Your task to perform on an android device: Open battery settings Image 0: 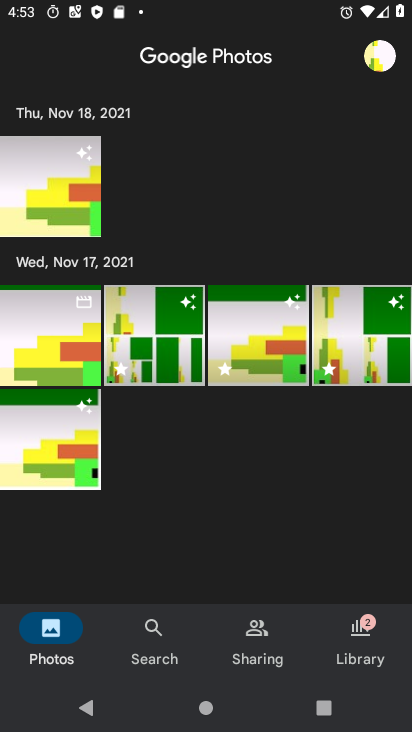
Step 0: press home button
Your task to perform on an android device: Open battery settings Image 1: 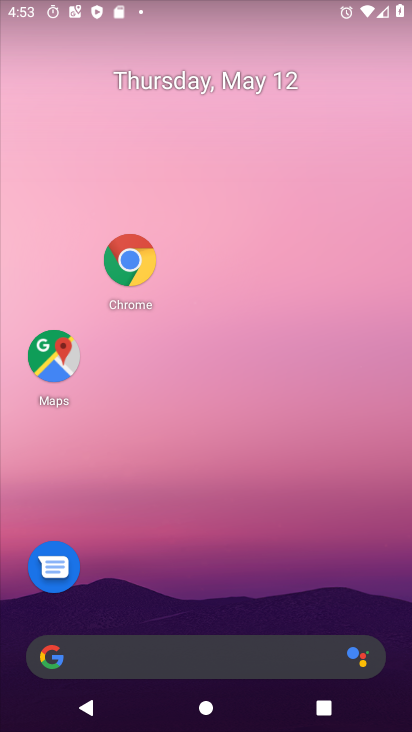
Step 1: click (220, 250)
Your task to perform on an android device: Open battery settings Image 2: 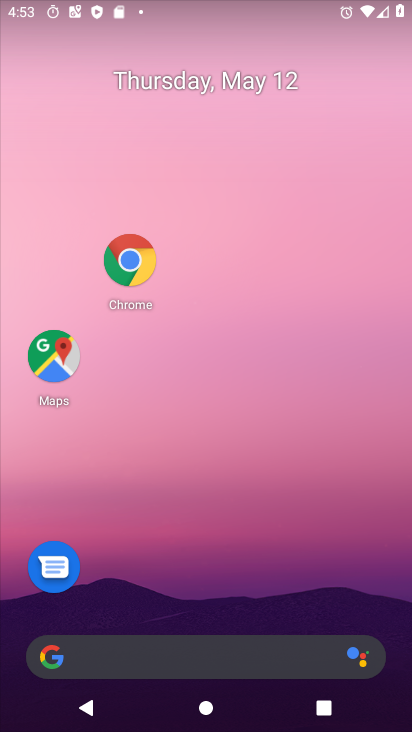
Step 2: drag from (227, 640) to (282, 145)
Your task to perform on an android device: Open battery settings Image 3: 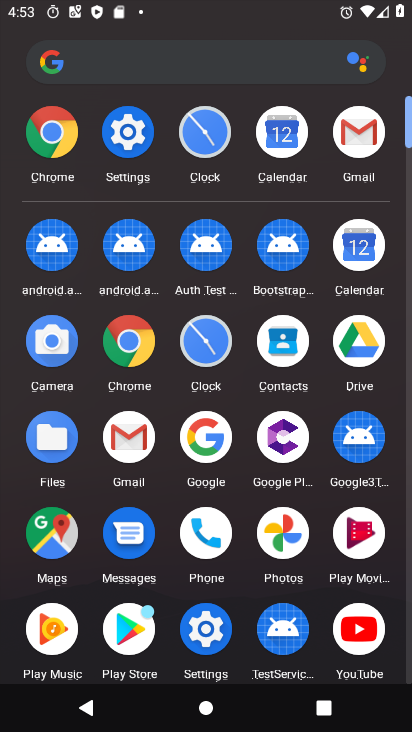
Step 3: click (131, 126)
Your task to perform on an android device: Open battery settings Image 4: 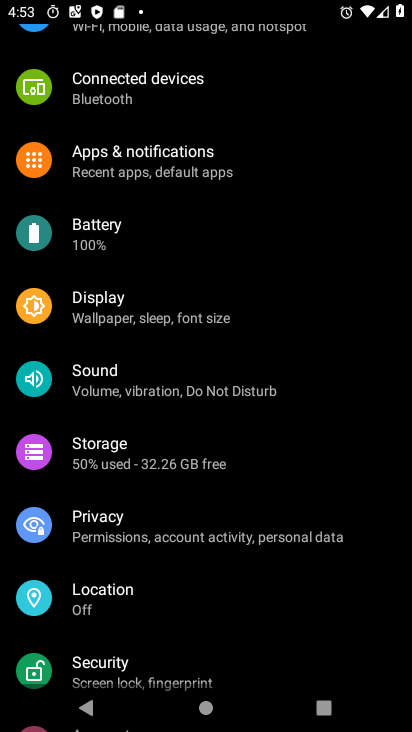
Step 4: click (96, 246)
Your task to perform on an android device: Open battery settings Image 5: 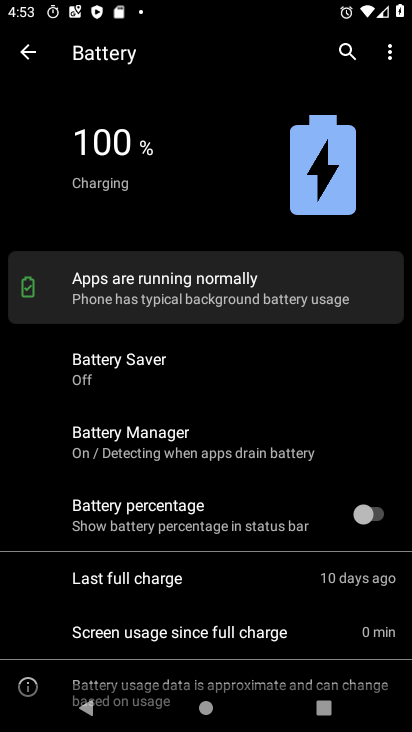
Step 5: task complete